Your task to perform on an android device: toggle translation in the chrome app Image 0: 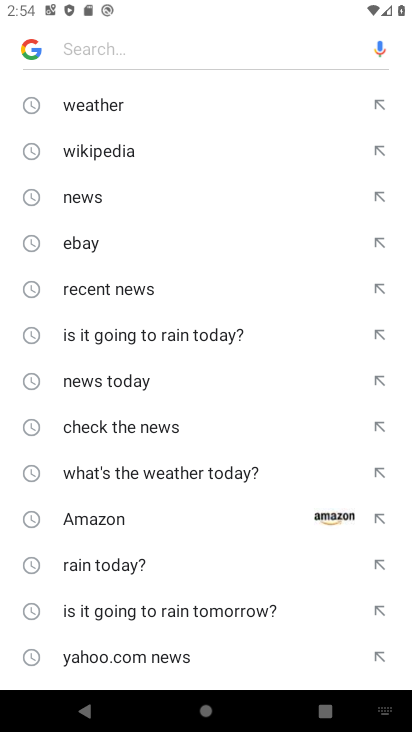
Step 0: press home button
Your task to perform on an android device: toggle translation in the chrome app Image 1: 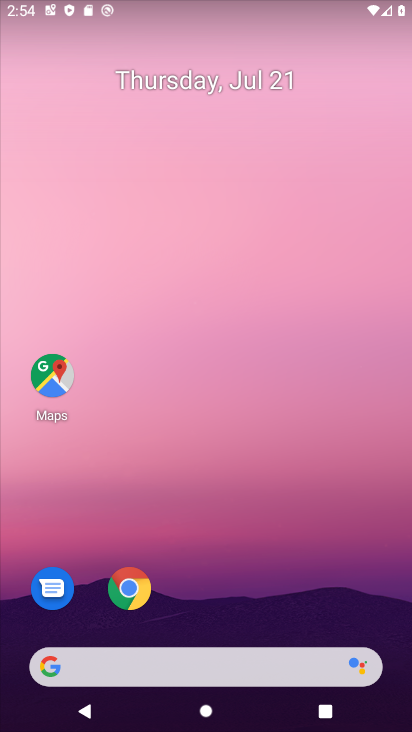
Step 1: click (125, 593)
Your task to perform on an android device: toggle translation in the chrome app Image 2: 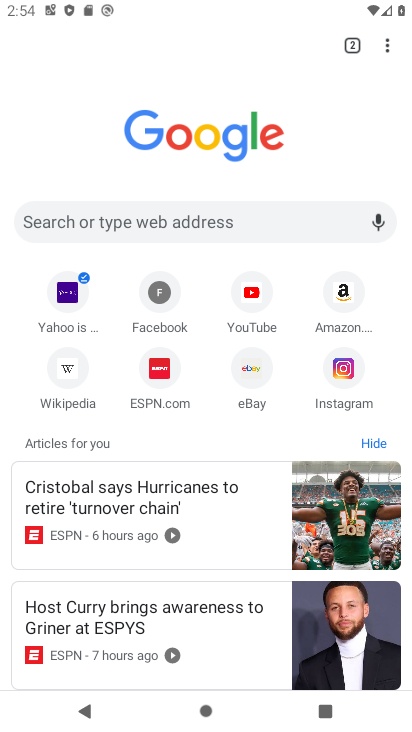
Step 2: click (386, 44)
Your task to perform on an android device: toggle translation in the chrome app Image 3: 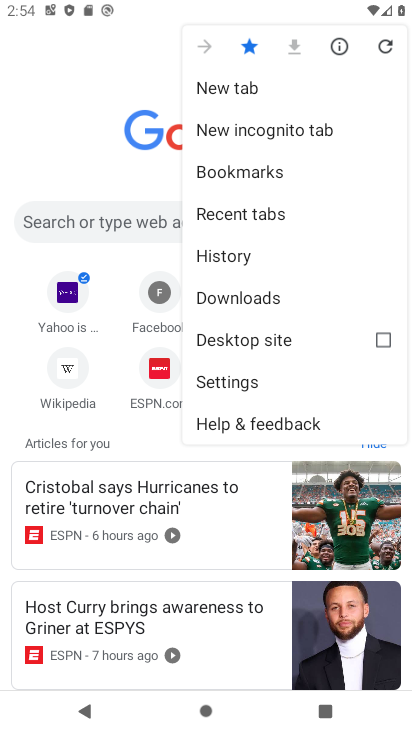
Step 3: click (236, 380)
Your task to perform on an android device: toggle translation in the chrome app Image 4: 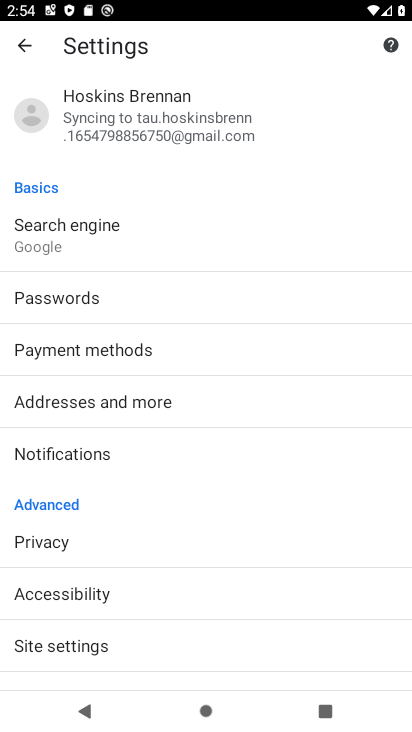
Step 4: drag from (129, 617) to (140, 374)
Your task to perform on an android device: toggle translation in the chrome app Image 5: 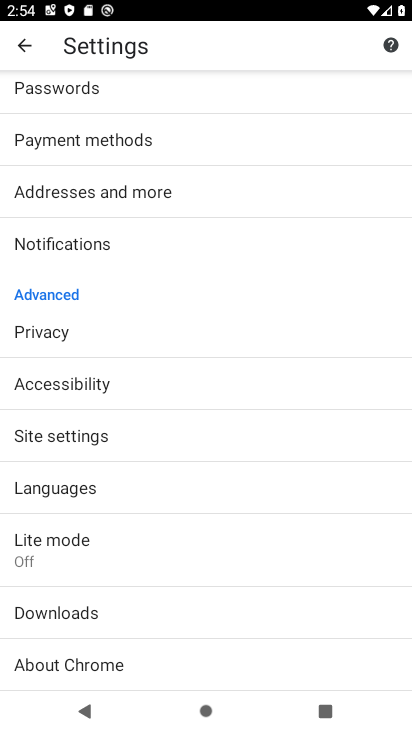
Step 5: click (66, 485)
Your task to perform on an android device: toggle translation in the chrome app Image 6: 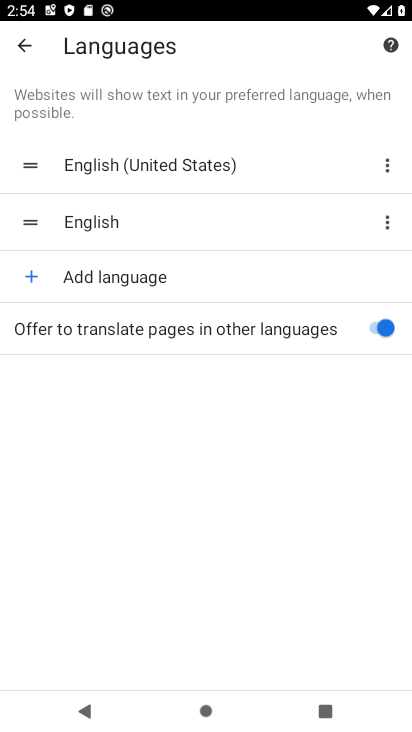
Step 6: click (386, 329)
Your task to perform on an android device: toggle translation in the chrome app Image 7: 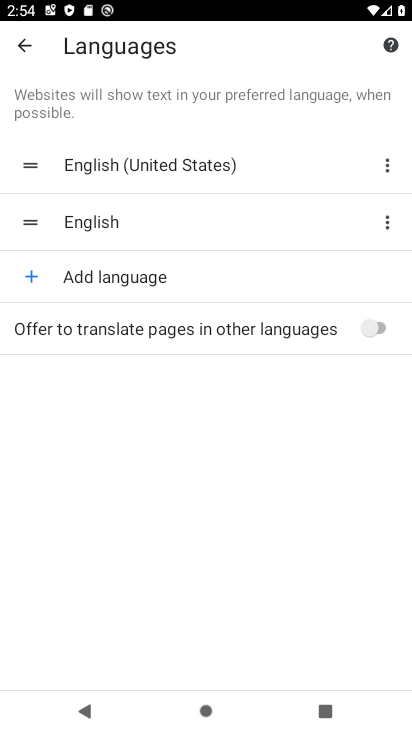
Step 7: task complete